Your task to perform on an android device: What's the weather going to be tomorrow? Image 0: 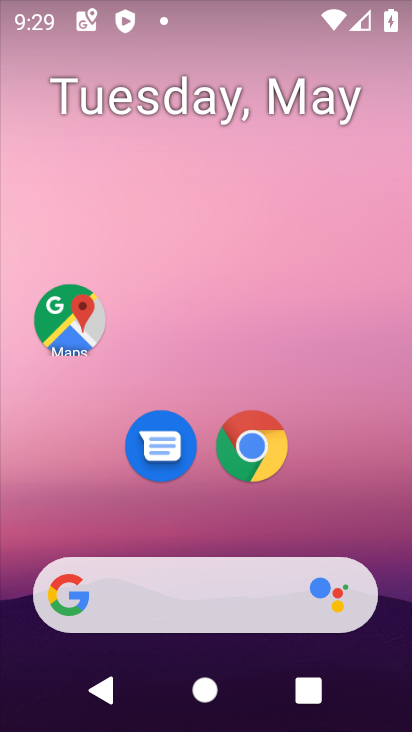
Step 0: drag from (16, 243) to (318, 190)
Your task to perform on an android device: What's the weather going to be tomorrow? Image 1: 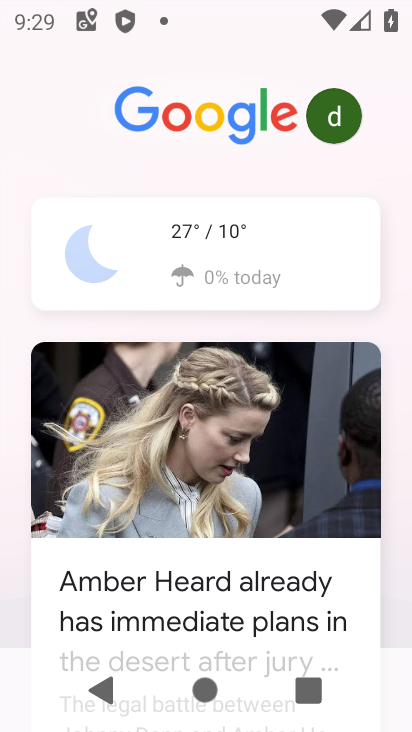
Step 1: click (86, 256)
Your task to perform on an android device: What's the weather going to be tomorrow? Image 2: 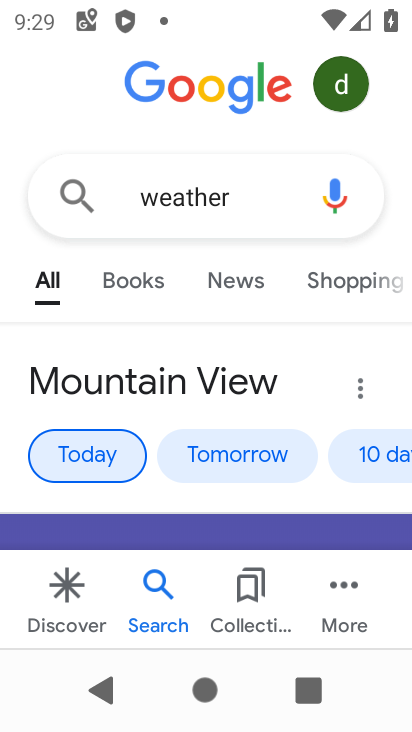
Step 2: click (219, 467)
Your task to perform on an android device: What's the weather going to be tomorrow? Image 3: 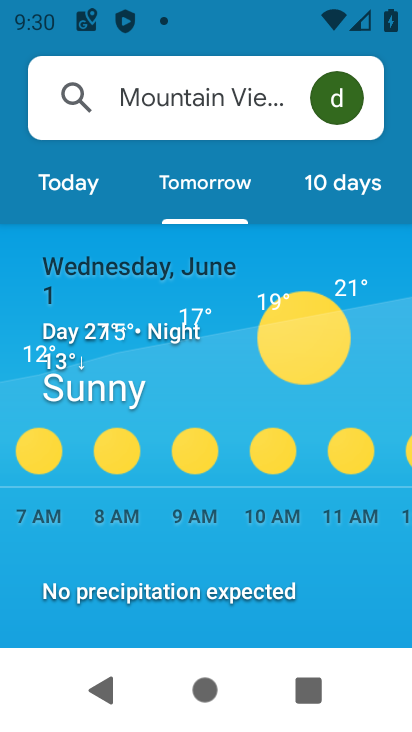
Step 3: task complete